Your task to perform on an android device: toggle notifications settings in the gmail app Image 0: 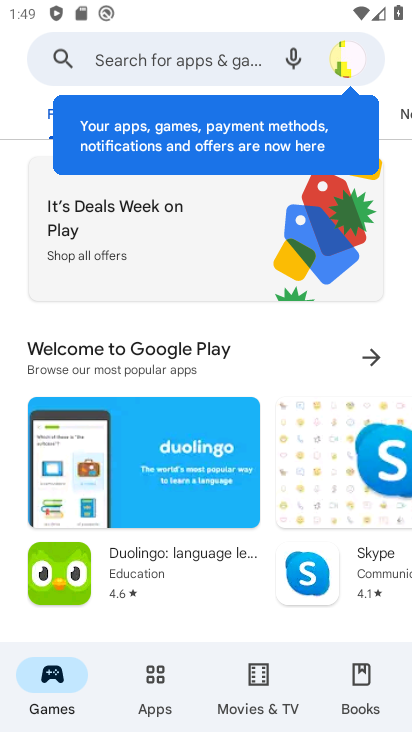
Step 0: press back button
Your task to perform on an android device: toggle notifications settings in the gmail app Image 1: 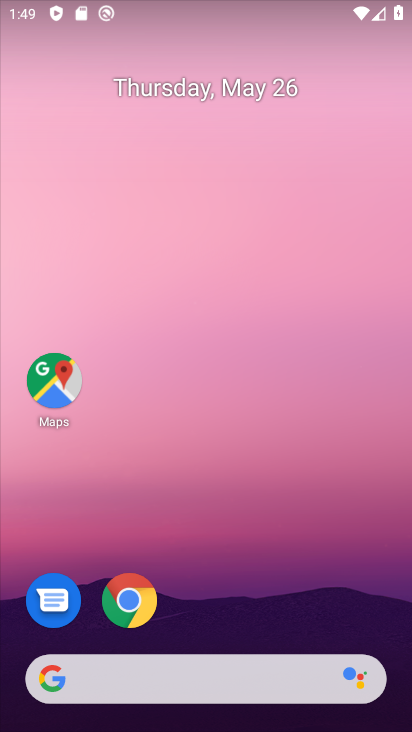
Step 1: drag from (280, 620) to (166, 37)
Your task to perform on an android device: toggle notifications settings in the gmail app Image 2: 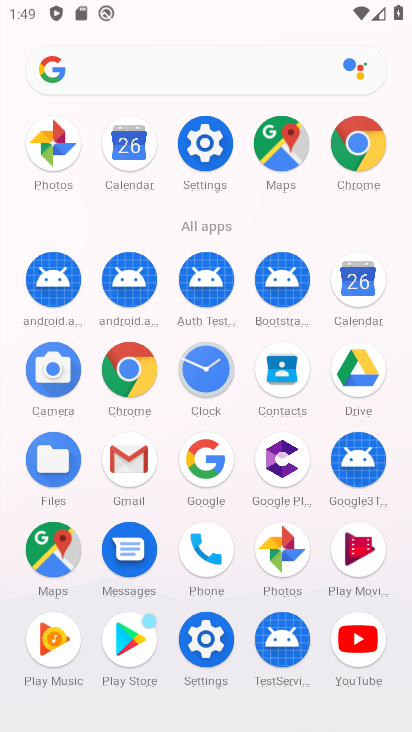
Step 2: drag from (12, 595) to (10, 300)
Your task to perform on an android device: toggle notifications settings in the gmail app Image 3: 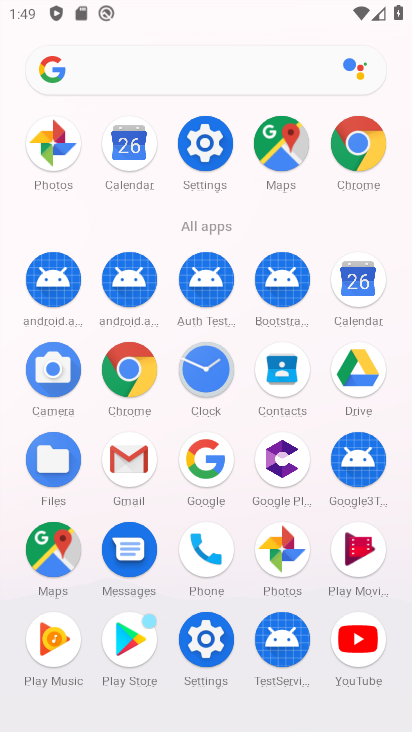
Step 3: click (129, 453)
Your task to perform on an android device: toggle notifications settings in the gmail app Image 4: 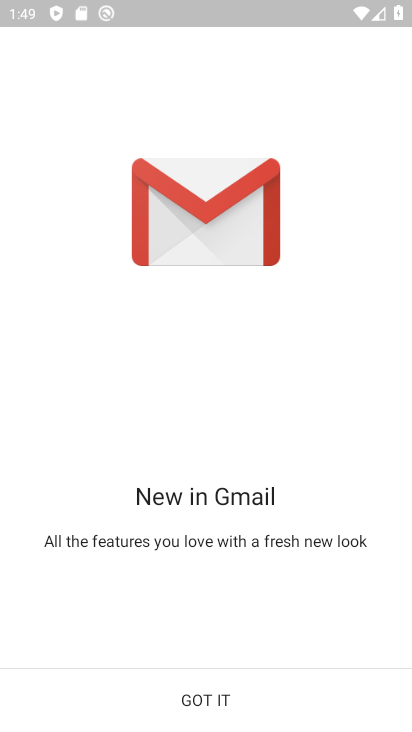
Step 4: click (215, 705)
Your task to perform on an android device: toggle notifications settings in the gmail app Image 5: 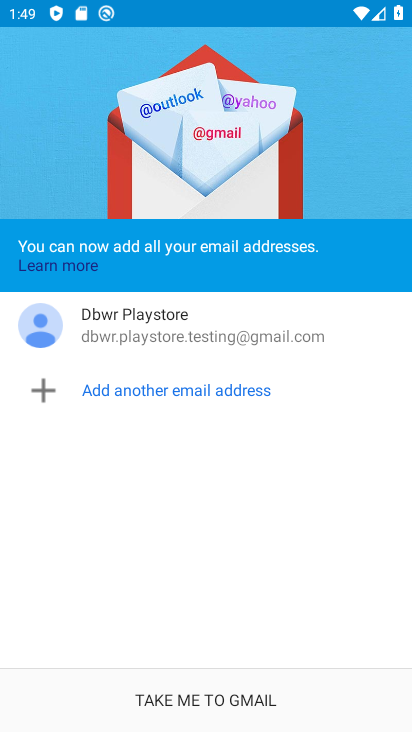
Step 5: click (256, 702)
Your task to perform on an android device: toggle notifications settings in the gmail app Image 6: 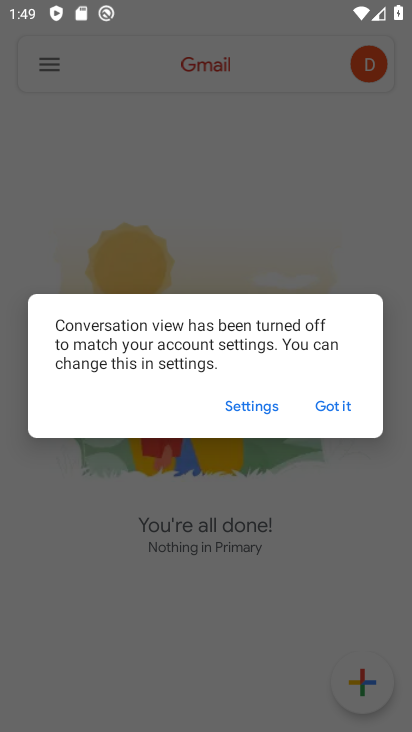
Step 6: click (321, 407)
Your task to perform on an android device: toggle notifications settings in the gmail app Image 7: 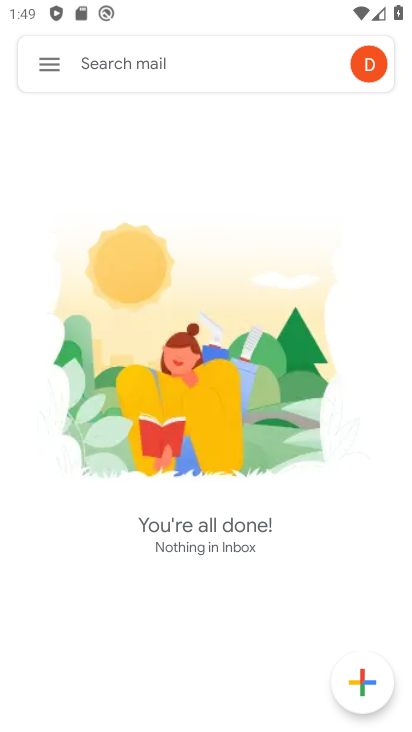
Step 7: click (35, 63)
Your task to perform on an android device: toggle notifications settings in the gmail app Image 8: 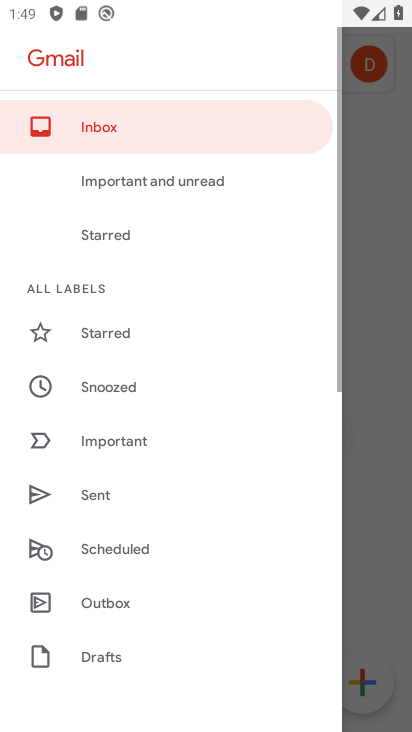
Step 8: drag from (219, 572) to (224, 135)
Your task to perform on an android device: toggle notifications settings in the gmail app Image 9: 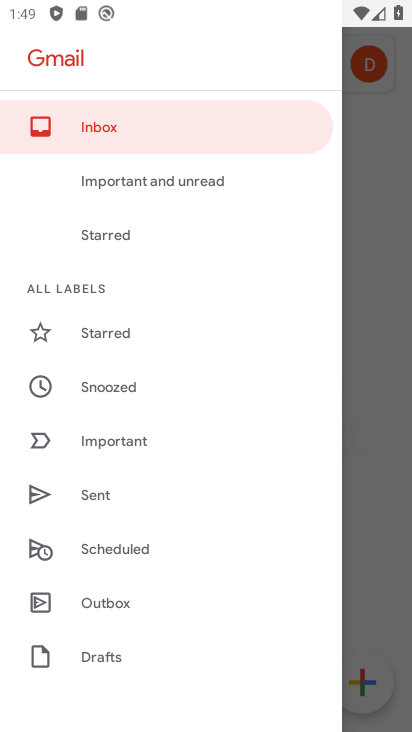
Step 9: drag from (198, 562) to (207, 170)
Your task to perform on an android device: toggle notifications settings in the gmail app Image 10: 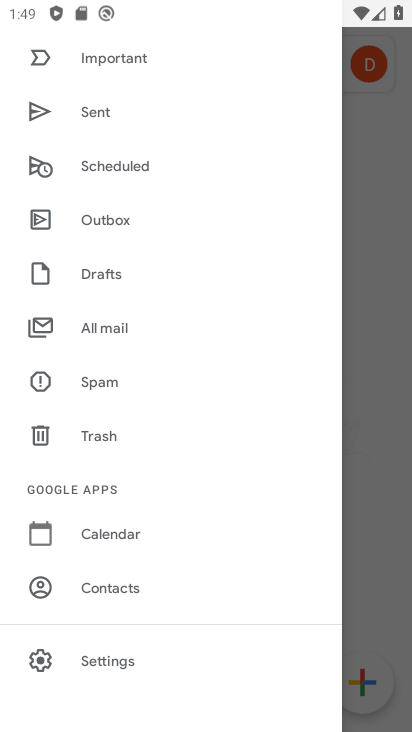
Step 10: drag from (186, 623) to (222, 207)
Your task to perform on an android device: toggle notifications settings in the gmail app Image 11: 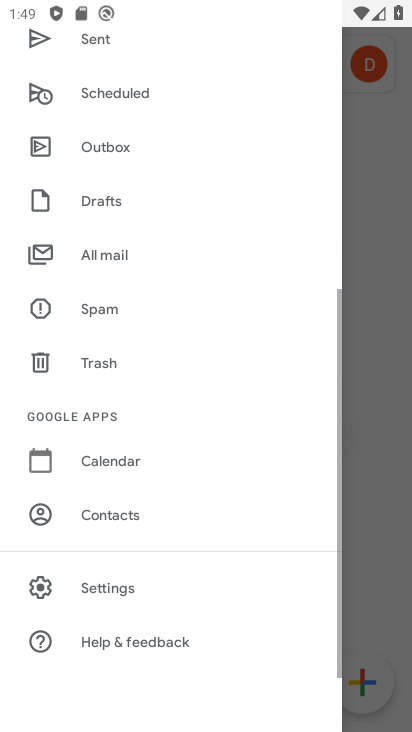
Step 11: click (134, 576)
Your task to perform on an android device: toggle notifications settings in the gmail app Image 12: 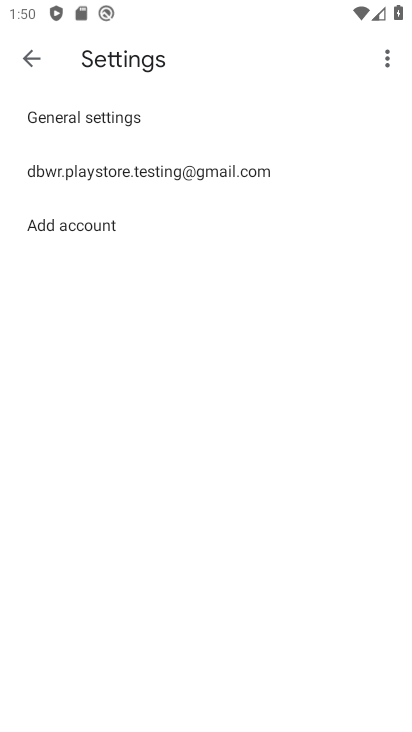
Step 12: click (151, 176)
Your task to perform on an android device: toggle notifications settings in the gmail app Image 13: 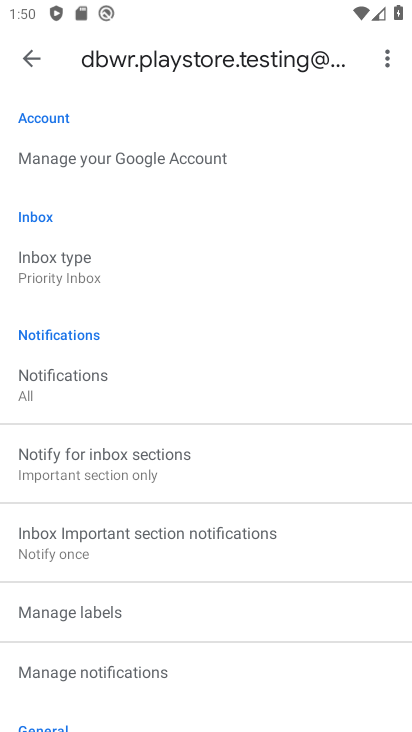
Step 13: drag from (208, 588) to (225, 224)
Your task to perform on an android device: toggle notifications settings in the gmail app Image 14: 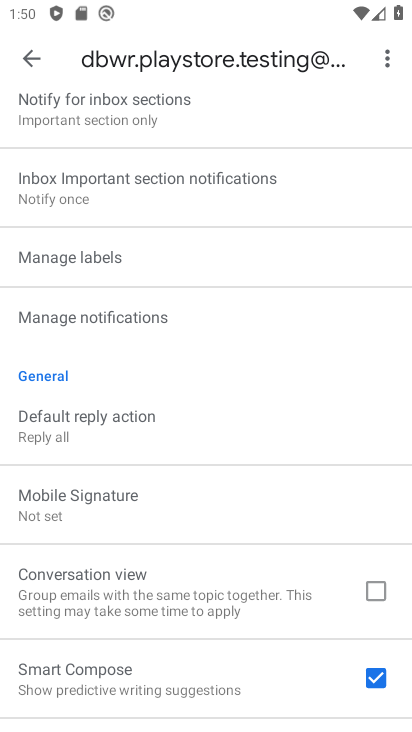
Step 14: click (112, 324)
Your task to perform on an android device: toggle notifications settings in the gmail app Image 15: 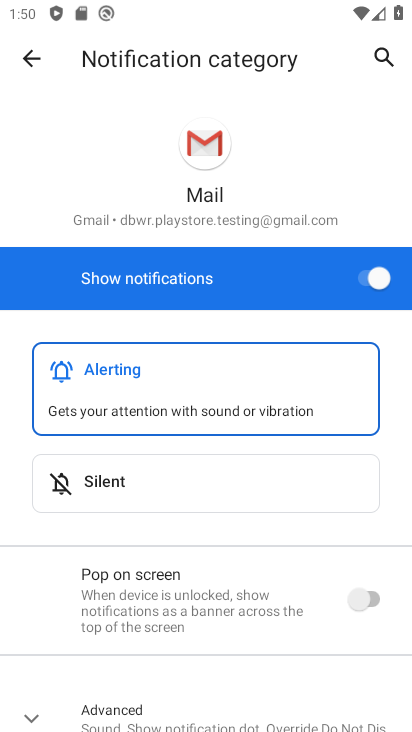
Step 15: click (366, 285)
Your task to perform on an android device: toggle notifications settings in the gmail app Image 16: 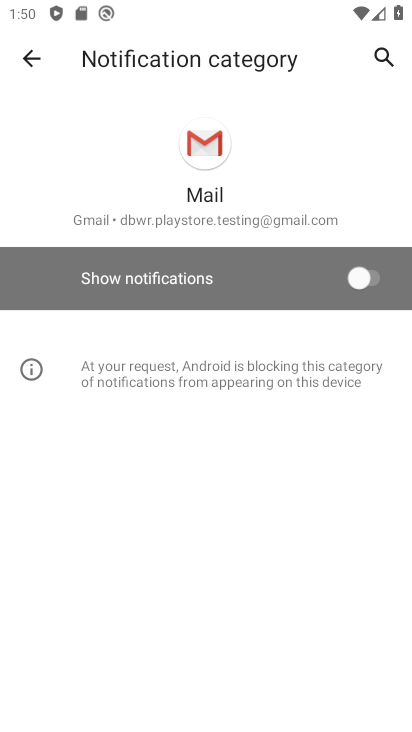
Step 16: task complete